Your task to perform on an android device: Go to Google Image 0: 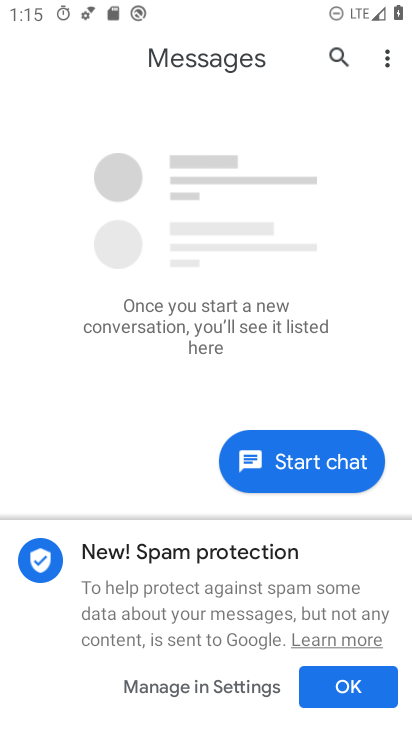
Step 0: press home button
Your task to perform on an android device: Go to Google Image 1: 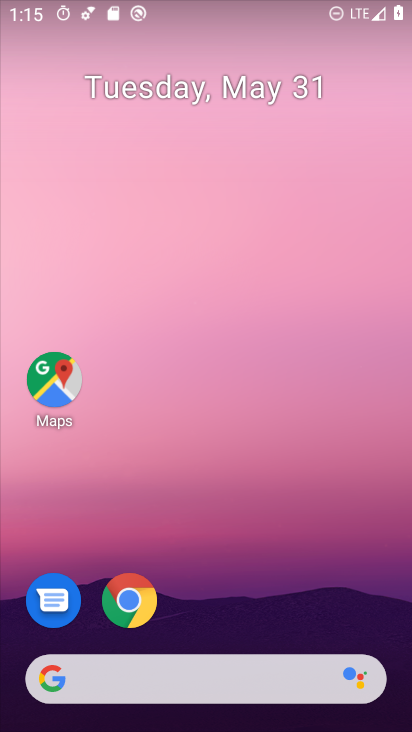
Step 1: drag from (227, 711) to (238, 180)
Your task to perform on an android device: Go to Google Image 2: 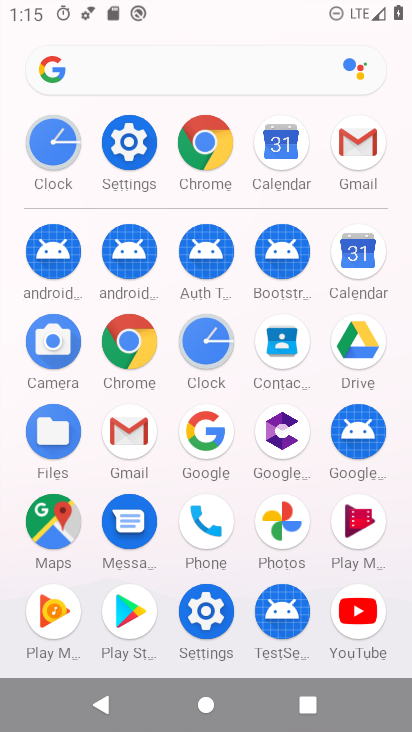
Step 2: click (209, 432)
Your task to perform on an android device: Go to Google Image 3: 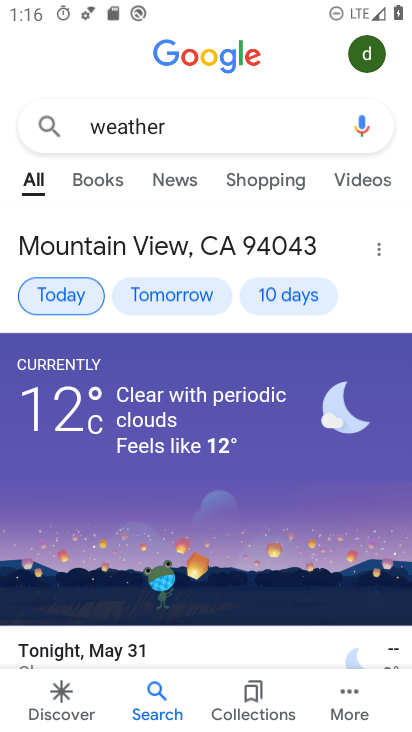
Step 3: task complete